Your task to perform on an android device: turn on javascript in the chrome app Image 0: 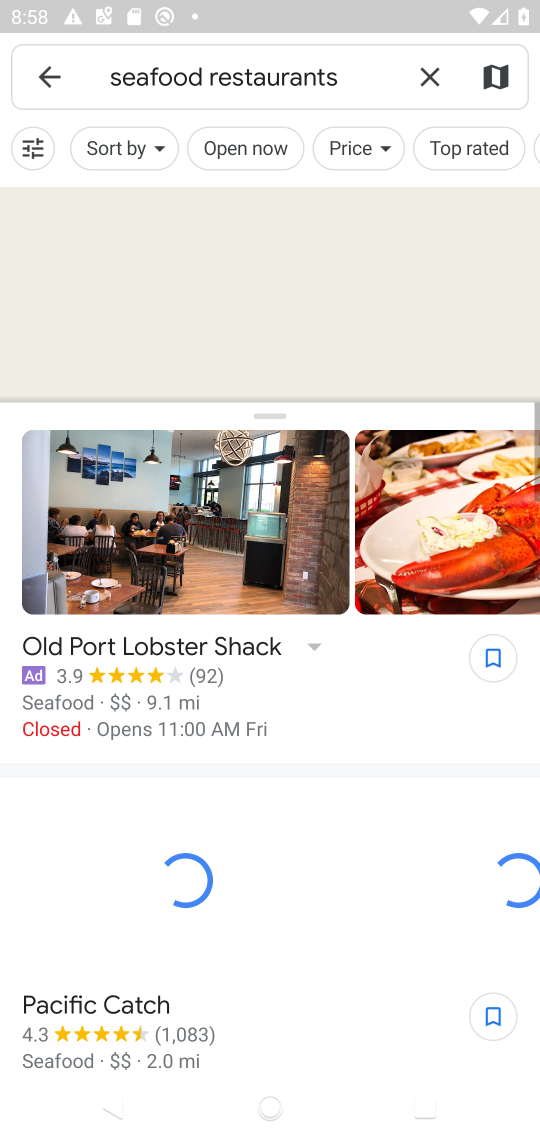
Step 0: press home button
Your task to perform on an android device: turn on javascript in the chrome app Image 1: 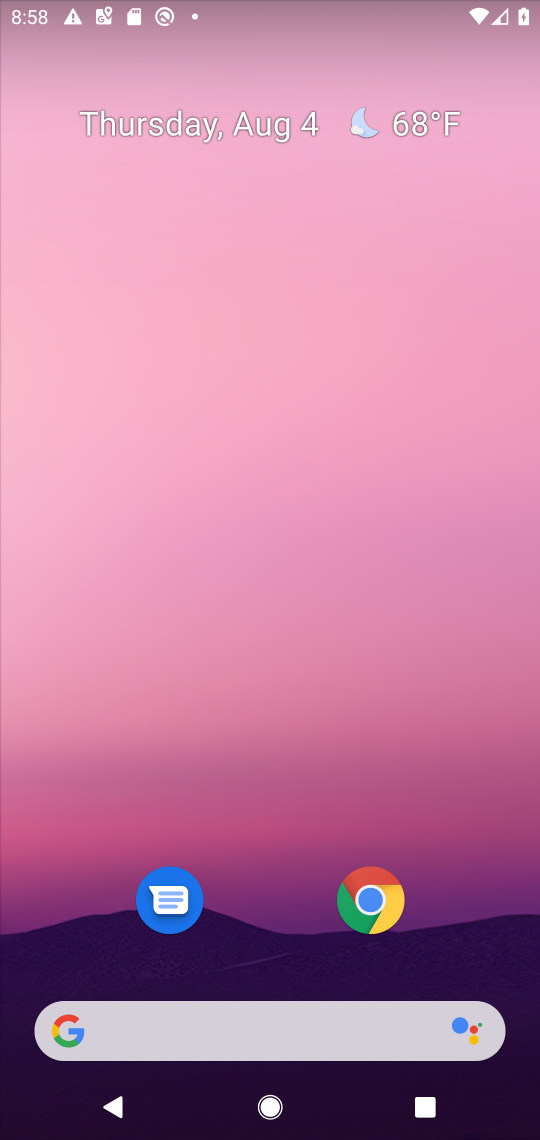
Step 1: click (356, 898)
Your task to perform on an android device: turn on javascript in the chrome app Image 2: 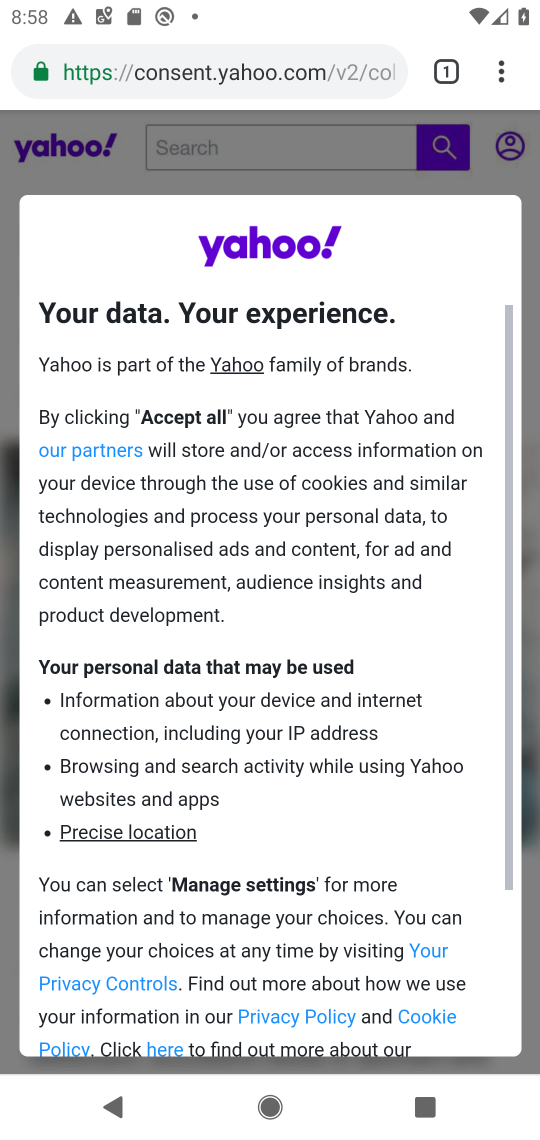
Step 2: click (498, 73)
Your task to perform on an android device: turn on javascript in the chrome app Image 3: 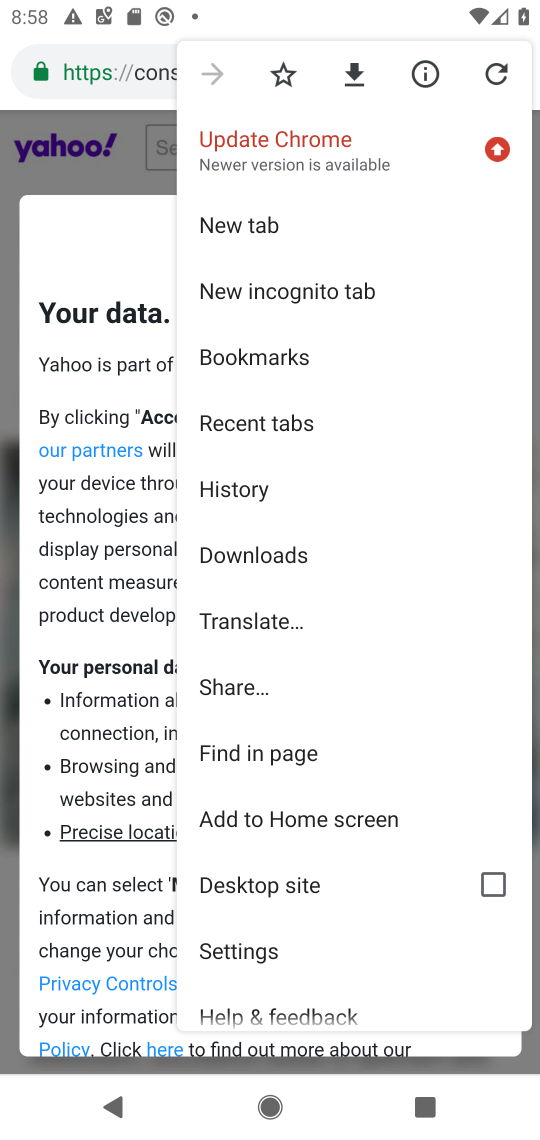
Step 3: click (253, 942)
Your task to perform on an android device: turn on javascript in the chrome app Image 4: 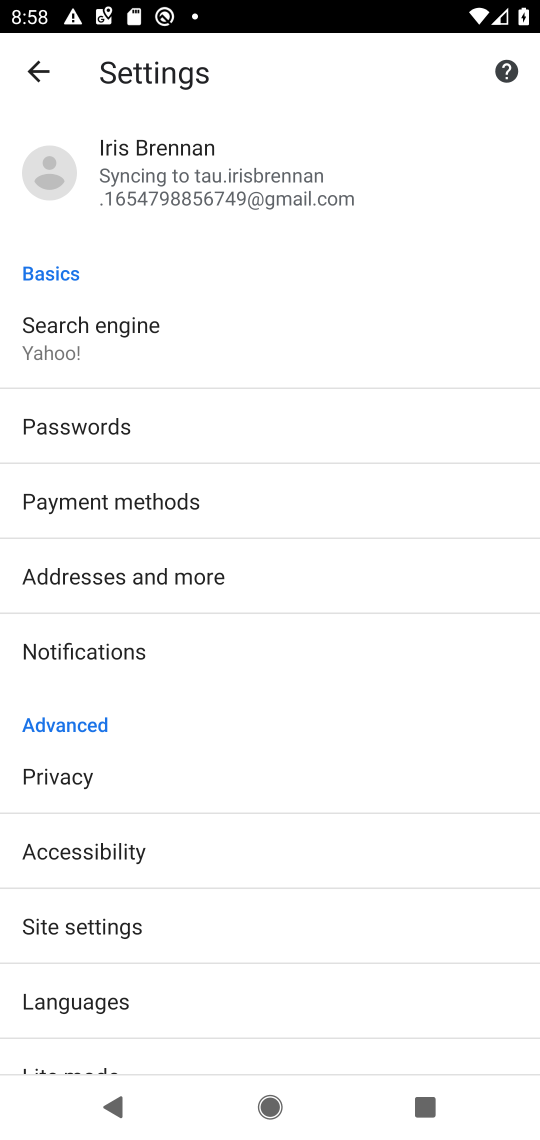
Step 4: click (83, 929)
Your task to perform on an android device: turn on javascript in the chrome app Image 5: 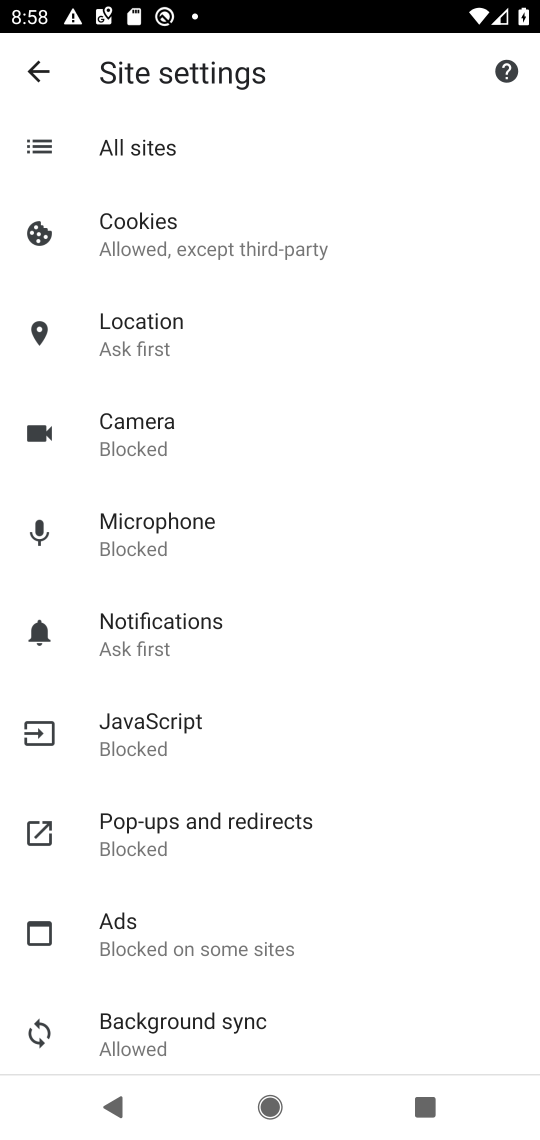
Step 5: click (170, 738)
Your task to perform on an android device: turn on javascript in the chrome app Image 6: 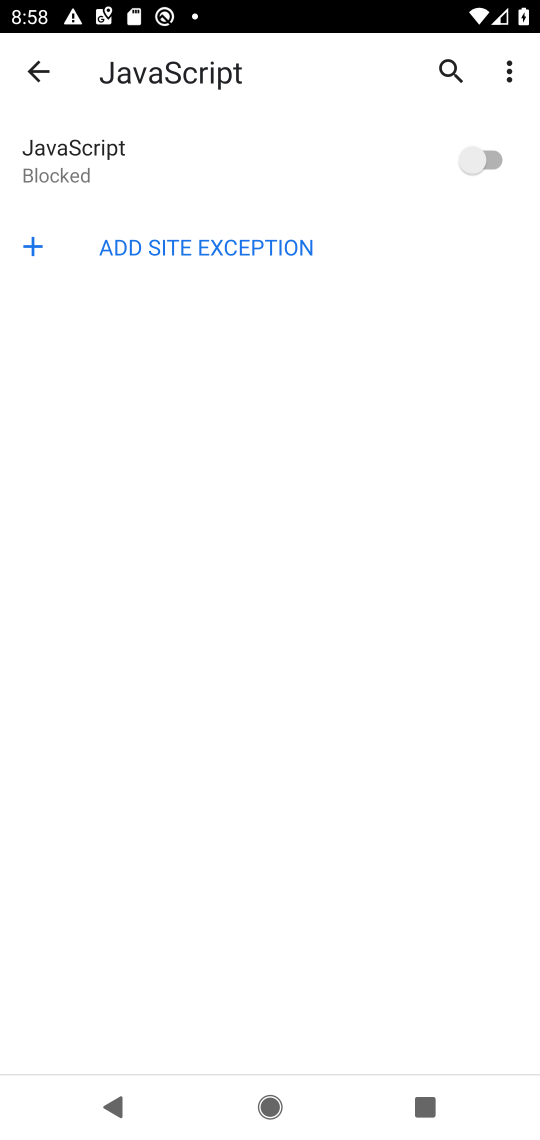
Step 6: click (497, 153)
Your task to perform on an android device: turn on javascript in the chrome app Image 7: 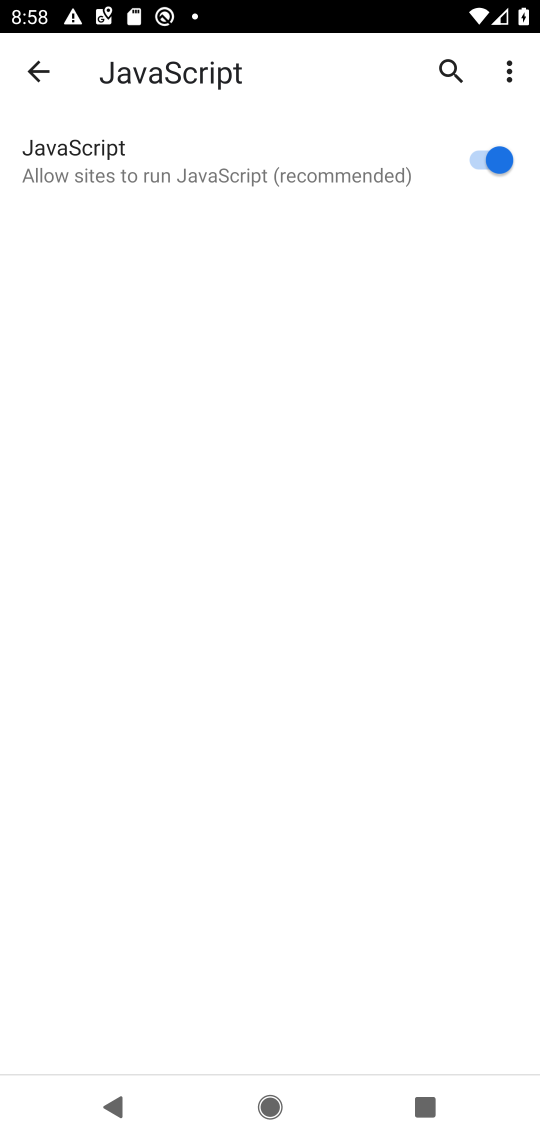
Step 7: task complete